Your task to perform on an android device: Go to sound settings Image 0: 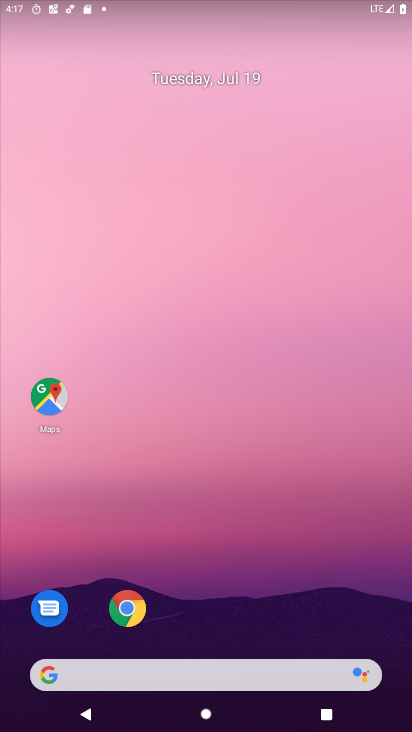
Step 0: drag from (199, 666) to (220, 129)
Your task to perform on an android device: Go to sound settings Image 1: 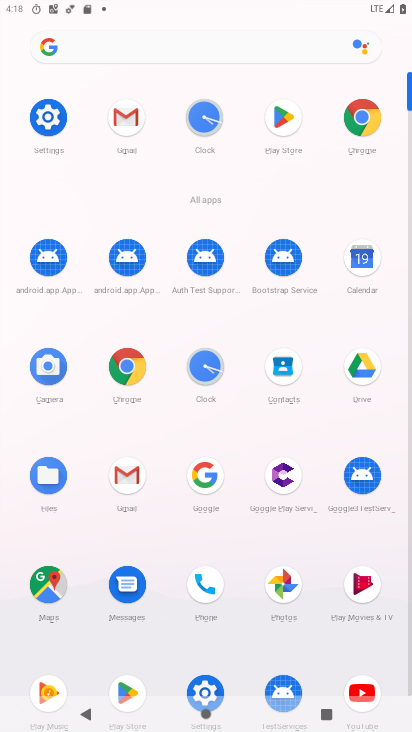
Step 1: click (48, 118)
Your task to perform on an android device: Go to sound settings Image 2: 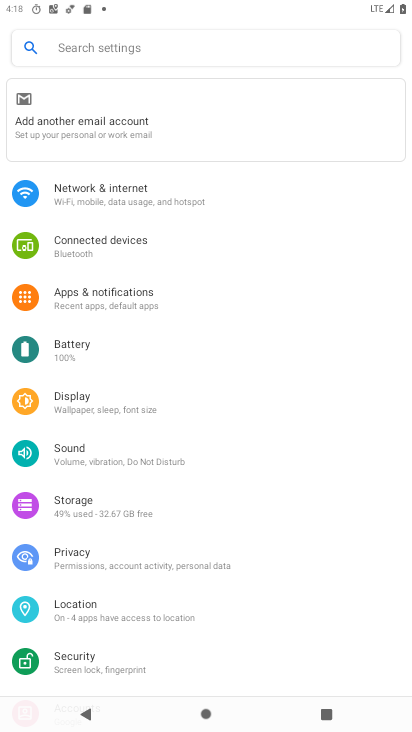
Step 2: click (82, 455)
Your task to perform on an android device: Go to sound settings Image 3: 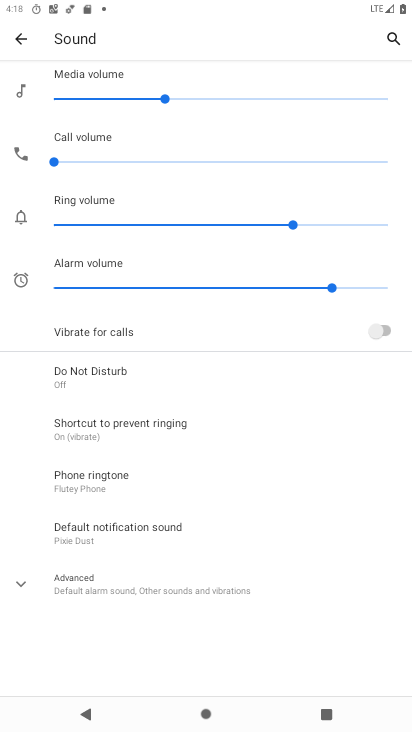
Step 3: task complete